Your task to perform on an android device: move a message to another label in the gmail app Image 0: 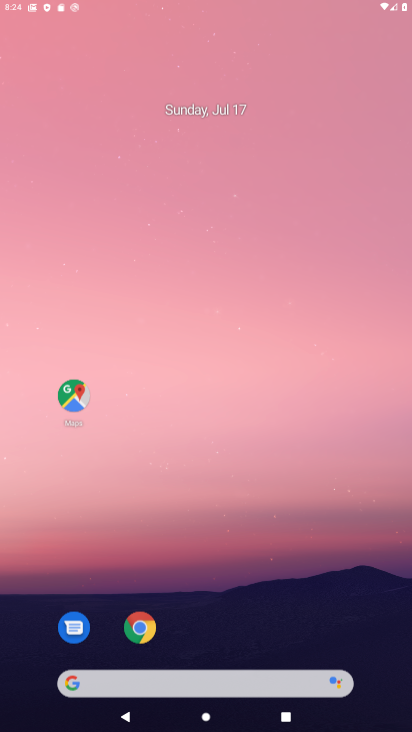
Step 0: press home button
Your task to perform on an android device: move a message to another label in the gmail app Image 1: 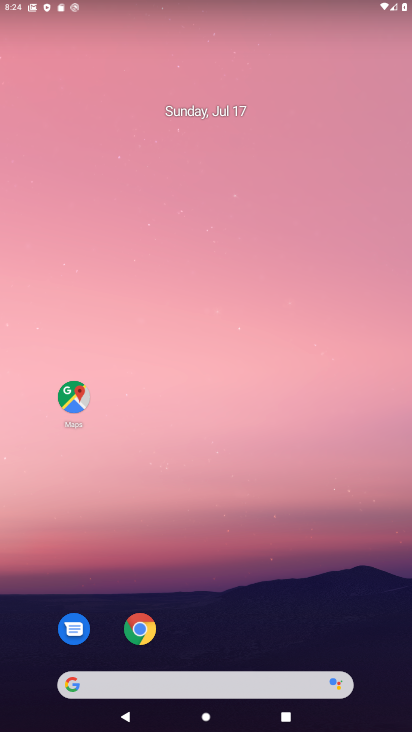
Step 1: drag from (215, 639) to (294, 69)
Your task to perform on an android device: move a message to another label in the gmail app Image 2: 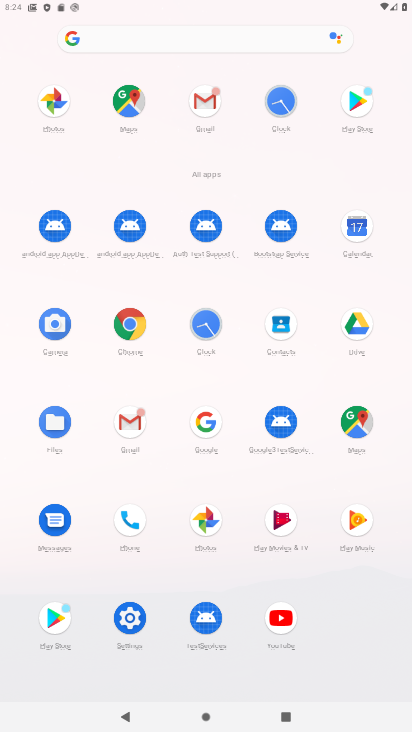
Step 2: click (135, 420)
Your task to perform on an android device: move a message to another label in the gmail app Image 3: 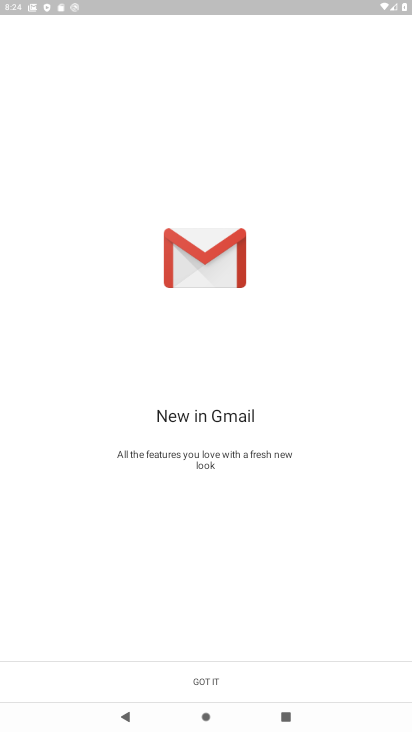
Step 3: click (181, 674)
Your task to perform on an android device: move a message to another label in the gmail app Image 4: 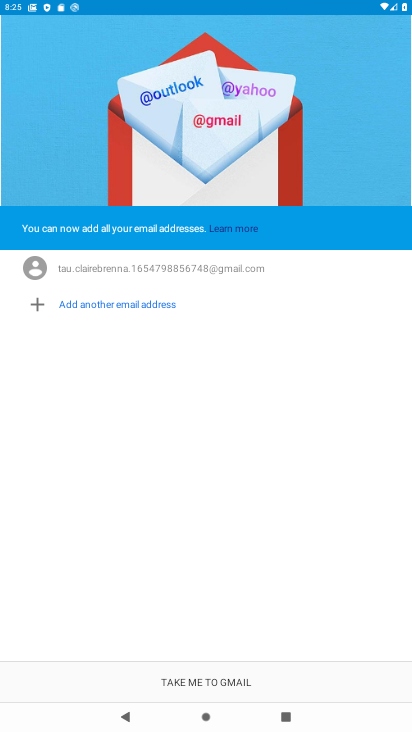
Step 4: click (234, 684)
Your task to perform on an android device: move a message to another label in the gmail app Image 5: 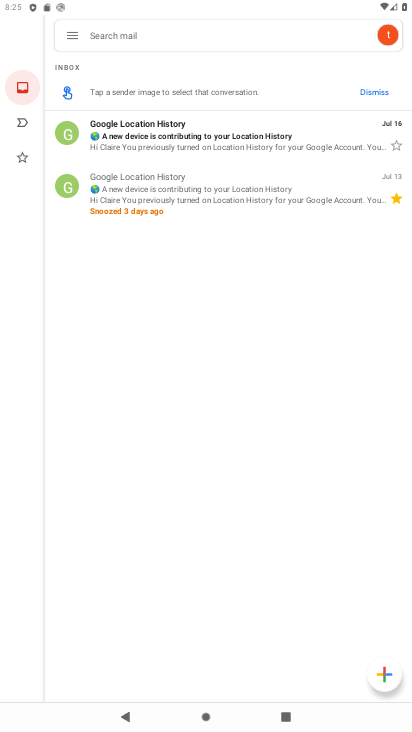
Step 5: click (68, 132)
Your task to perform on an android device: move a message to another label in the gmail app Image 6: 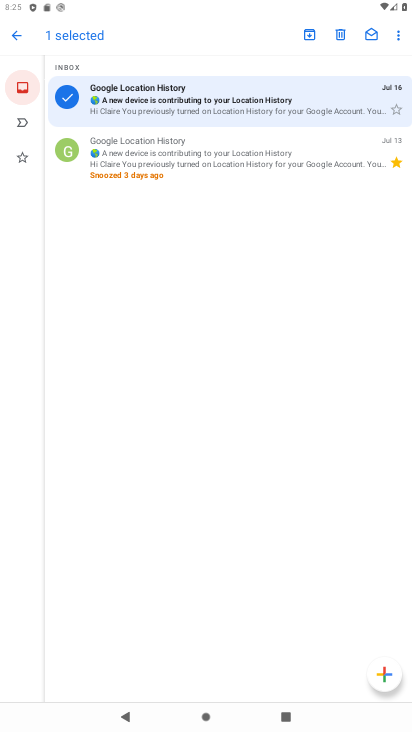
Step 6: click (404, 35)
Your task to perform on an android device: move a message to another label in the gmail app Image 7: 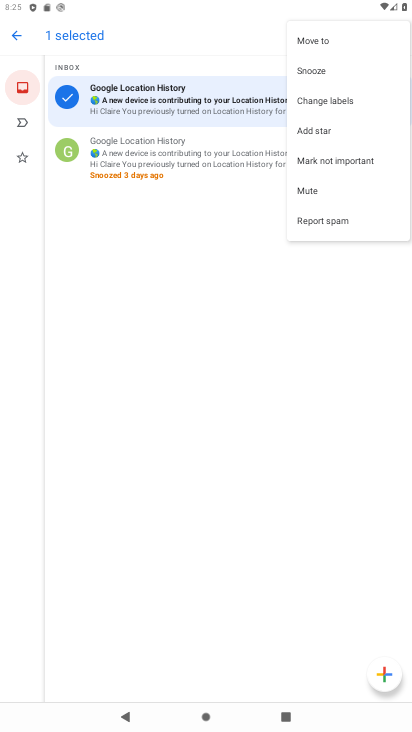
Step 7: click (334, 36)
Your task to perform on an android device: move a message to another label in the gmail app Image 8: 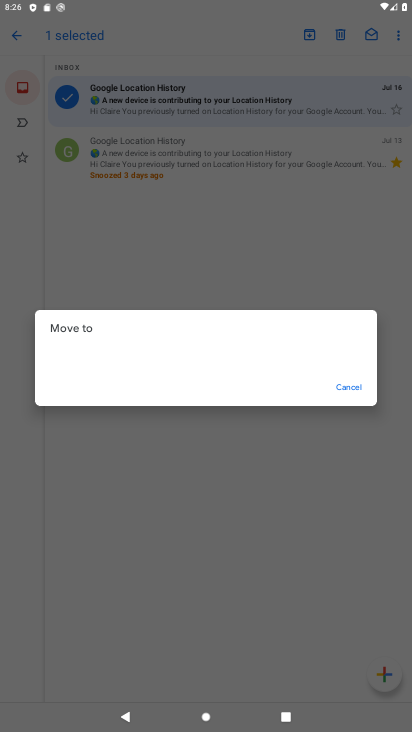
Step 8: task complete